Your task to perform on an android device: open a new tab in the chrome app Image 0: 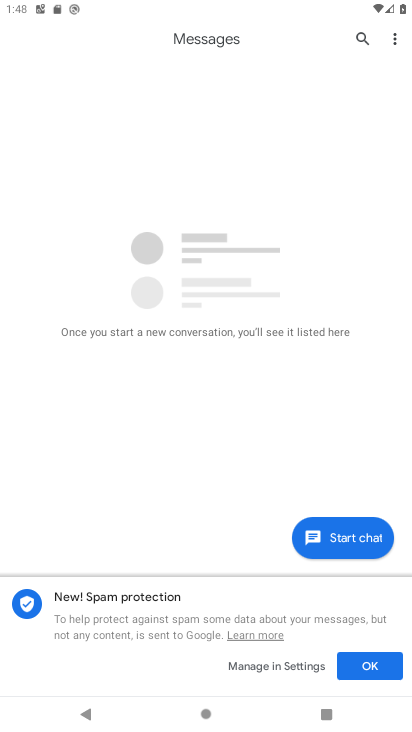
Step 0: press home button
Your task to perform on an android device: open a new tab in the chrome app Image 1: 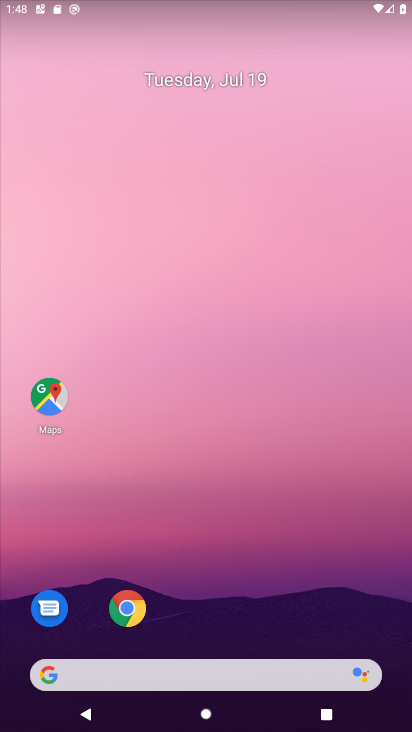
Step 1: drag from (200, 605) to (235, 167)
Your task to perform on an android device: open a new tab in the chrome app Image 2: 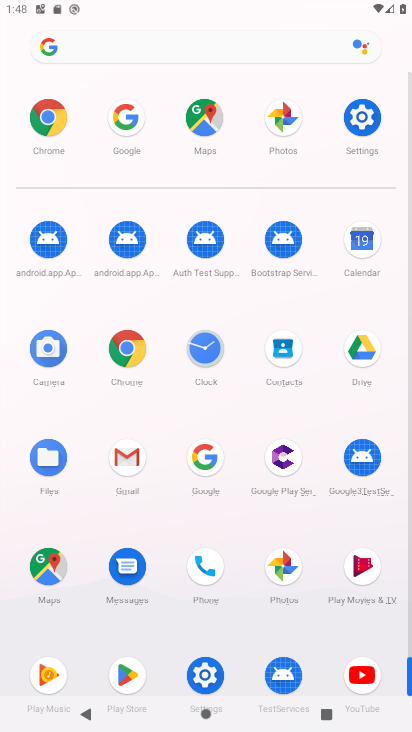
Step 2: click (132, 369)
Your task to perform on an android device: open a new tab in the chrome app Image 3: 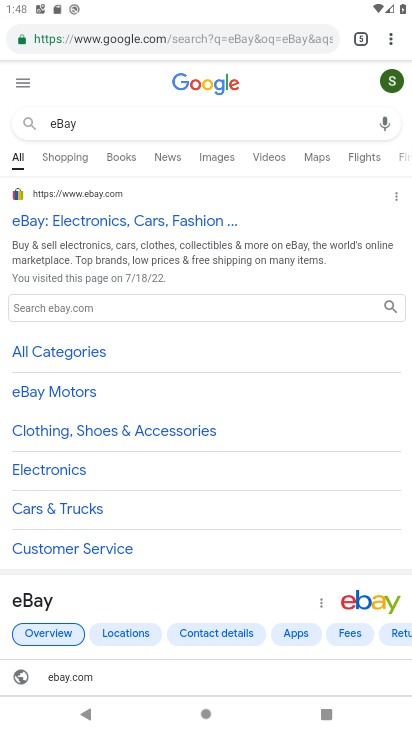
Step 3: click (364, 45)
Your task to perform on an android device: open a new tab in the chrome app Image 4: 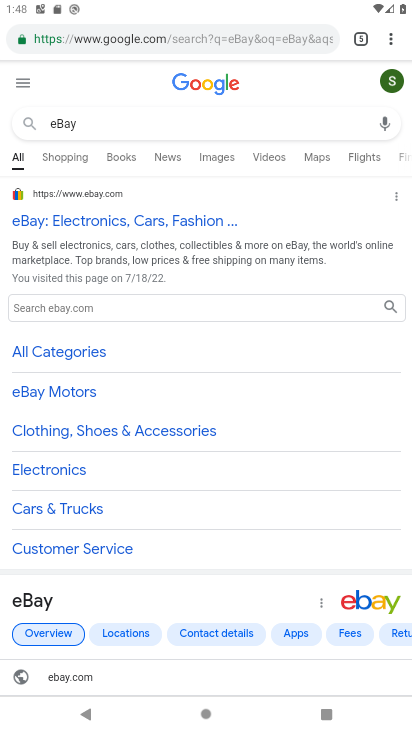
Step 4: click (356, 45)
Your task to perform on an android device: open a new tab in the chrome app Image 5: 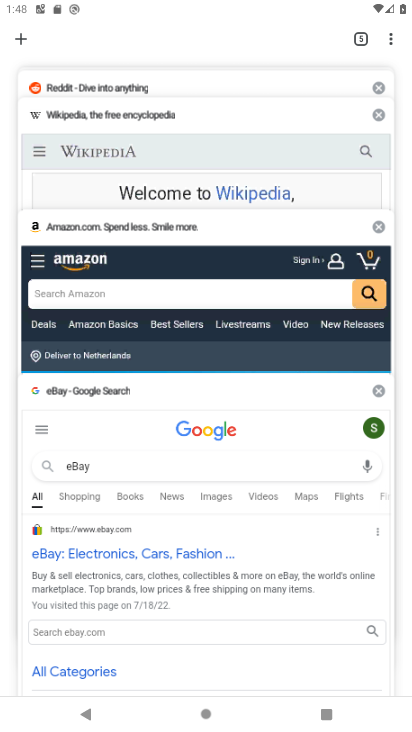
Step 5: click (26, 43)
Your task to perform on an android device: open a new tab in the chrome app Image 6: 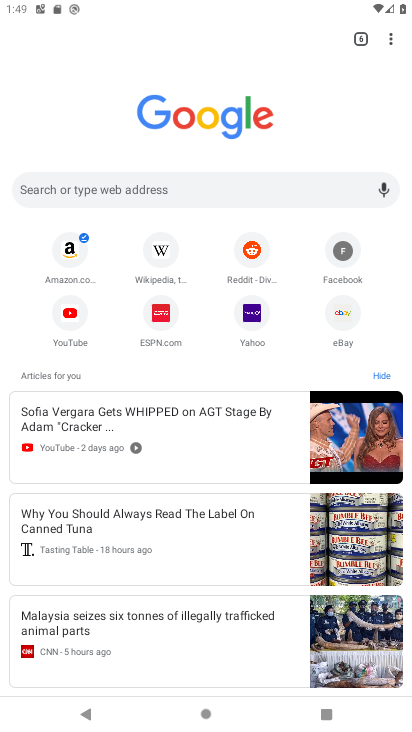
Step 6: task complete